Your task to perform on an android device: open app "Mercado Libre" (install if not already installed) Image 0: 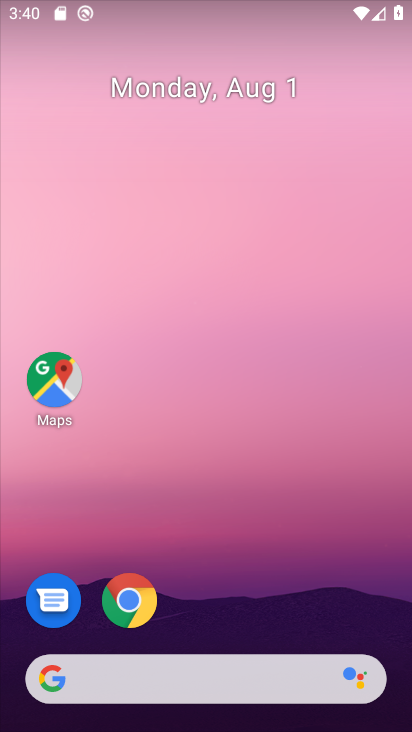
Step 0: drag from (300, 555) to (301, 64)
Your task to perform on an android device: open app "Mercado Libre" (install if not already installed) Image 1: 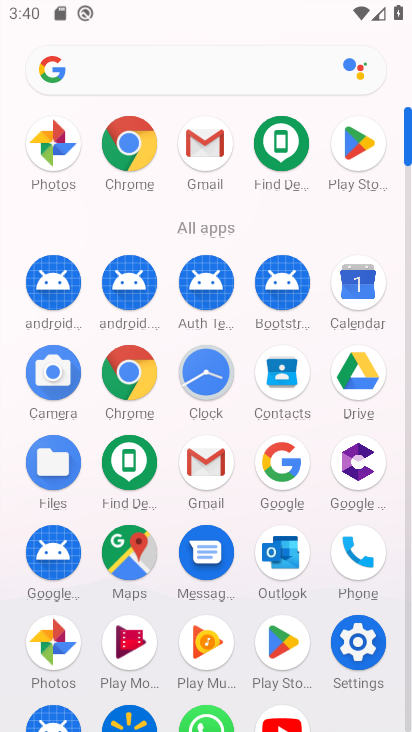
Step 1: click (367, 136)
Your task to perform on an android device: open app "Mercado Libre" (install if not already installed) Image 2: 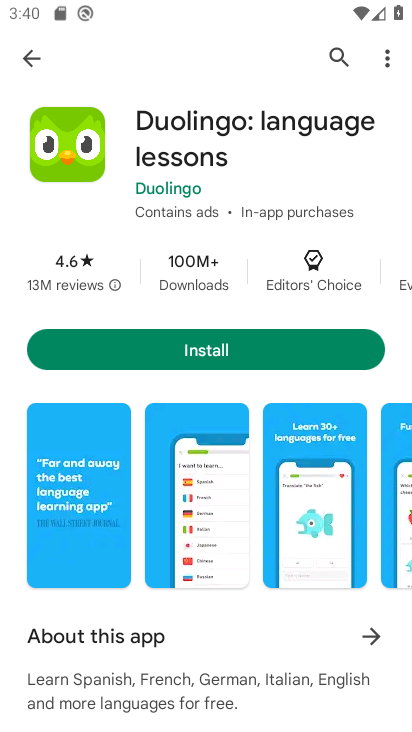
Step 2: click (20, 54)
Your task to perform on an android device: open app "Mercado Libre" (install if not already installed) Image 3: 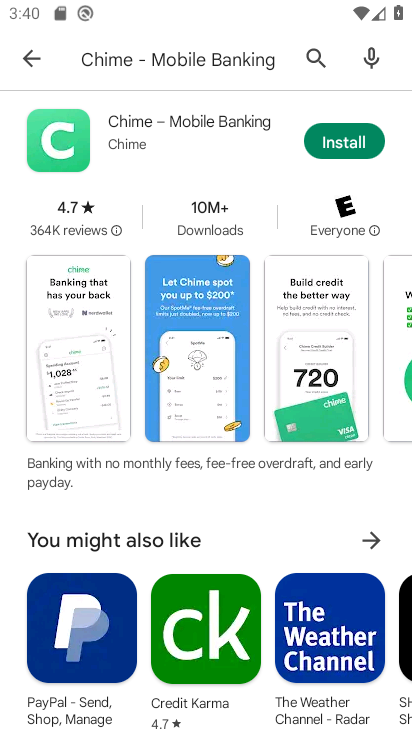
Step 3: click (259, 62)
Your task to perform on an android device: open app "Mercado Libre" (install if not already installed) Image 4: 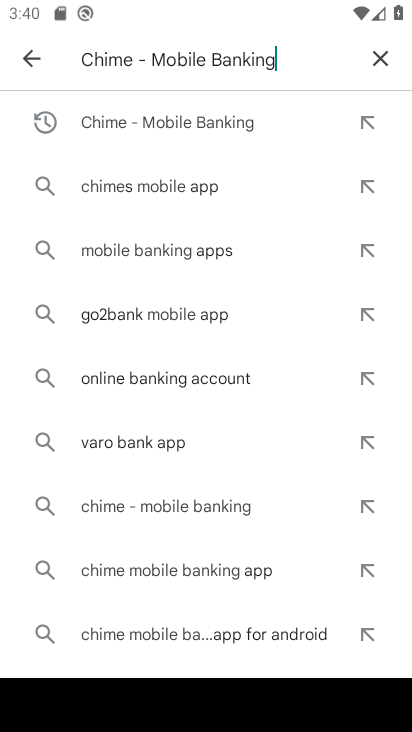
Step 4: click (374, 50)
Your task to perform on an android device: open app "Mercado Libre" (install if not already installed) Image 5: 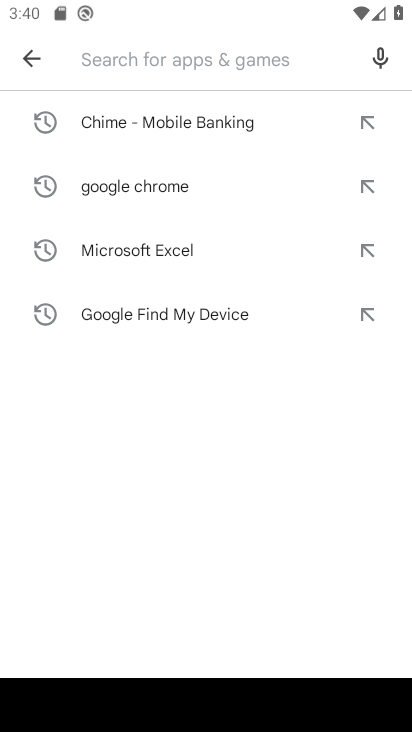
Step 5: type "Mercado Libre"
Your task to perform on an android device: open app "Mercado Libre" (install if not already installed) Image 6: 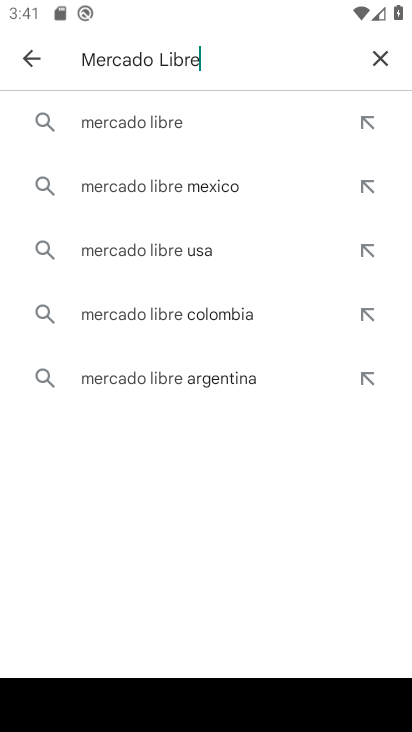
Step 6: press enter
Your task to perform on an android device: open app "Mercado Libre" (install if not already installed) Image 7: 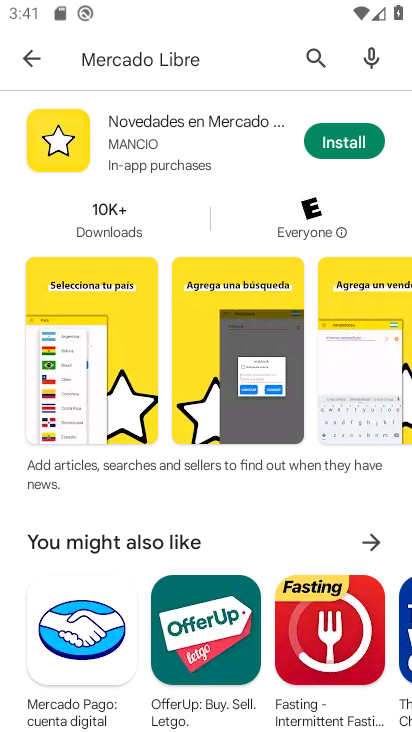
Step 7: click (362, 143)
Your task to perform on an android device: open app "Mercado Libre" (install if not already installed) Image 8: 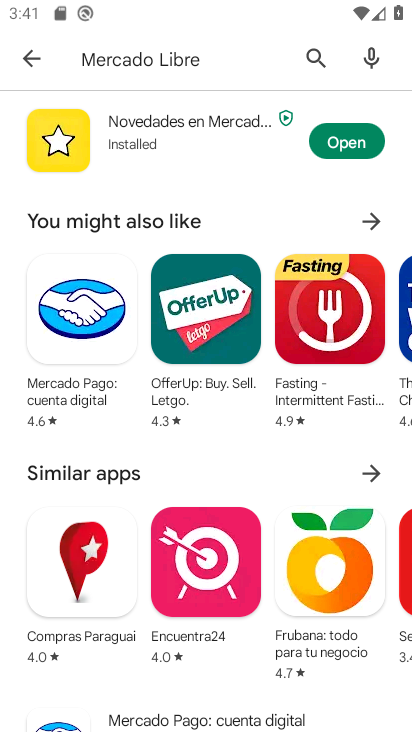
Step 8: click (353, 137)
Your task to perform on an android device: open app "Mercado Libre" (install if not already installed) Image 9: 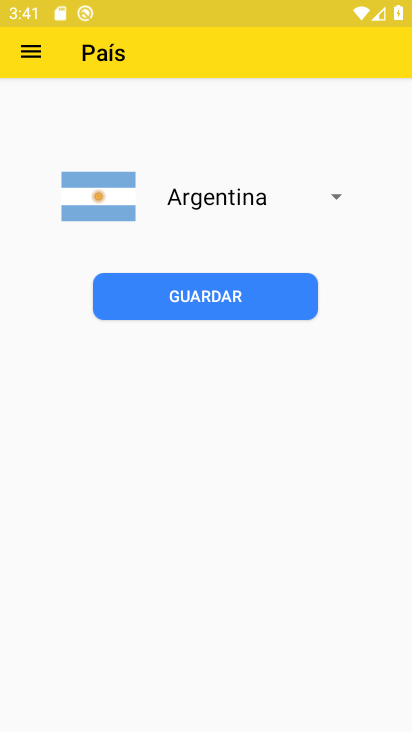
Step 9: task complete